Your task to perform on an android device: open a new tab in the chrome app Image 0: 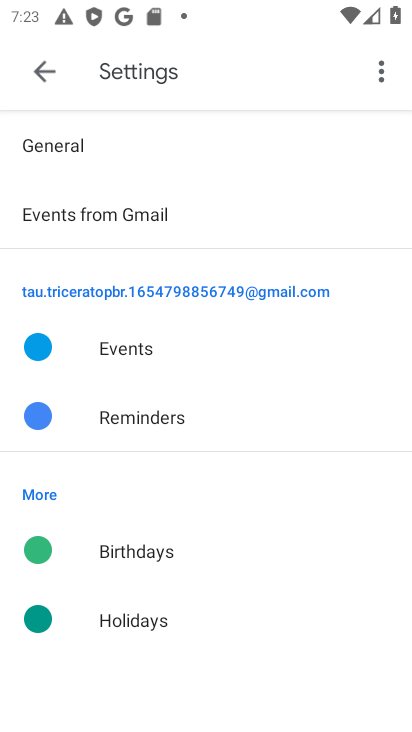
Step 0: press home button
Your task to perform on an android device: open a new tab in the chrome app Image 1: 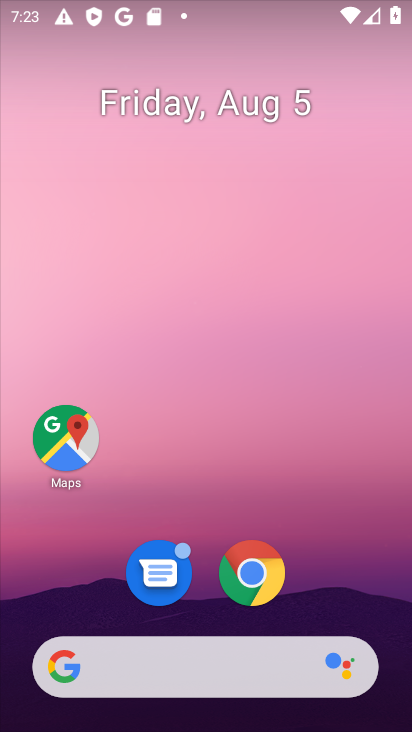
Step 1: click (267, 570)
Your task to perform on an android device: open a new tab in the chrome app Image 2: 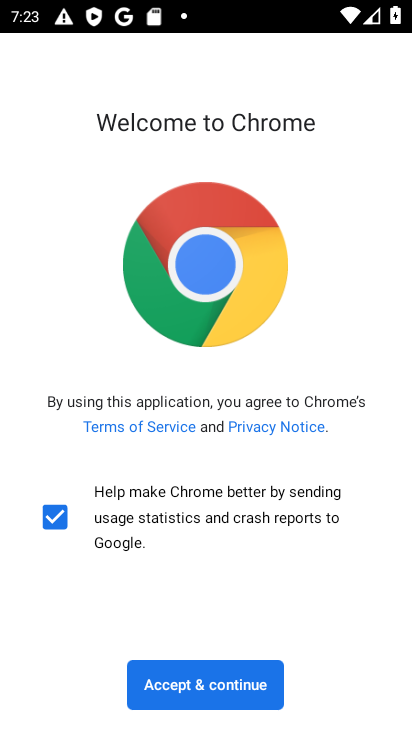
Step 2: click (243, 681)
Your task to perform on an android device: open a new tab in the chrome app Image 3: 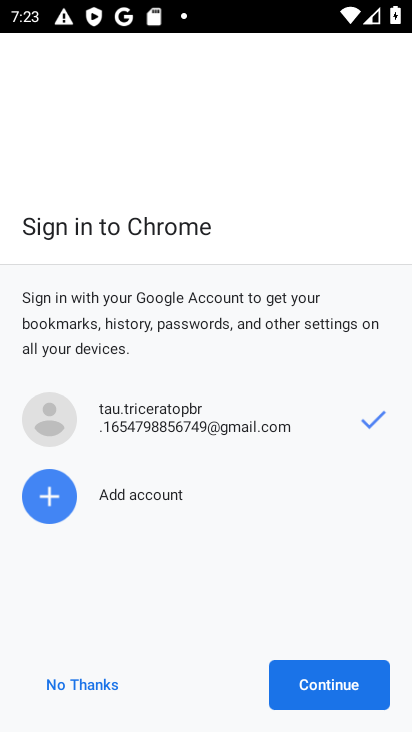
Step 3: click (300, 691)
Your task to perform on an android device: open a new tab in the chrome app Image 4: 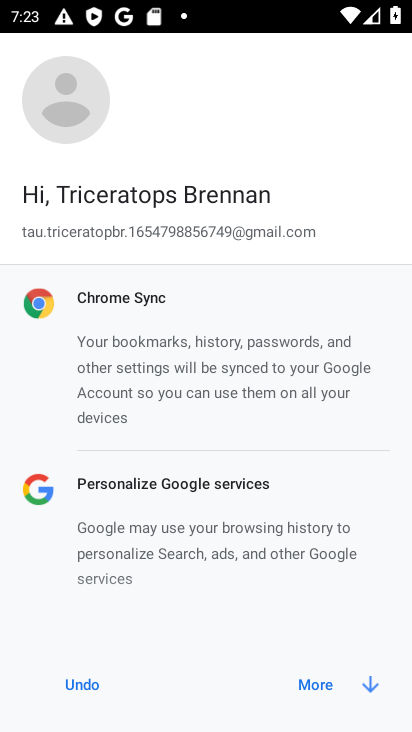
Step 4: click (300, 691)
Your task to perform on an android device: open a new tab in the chrome app Image 5: 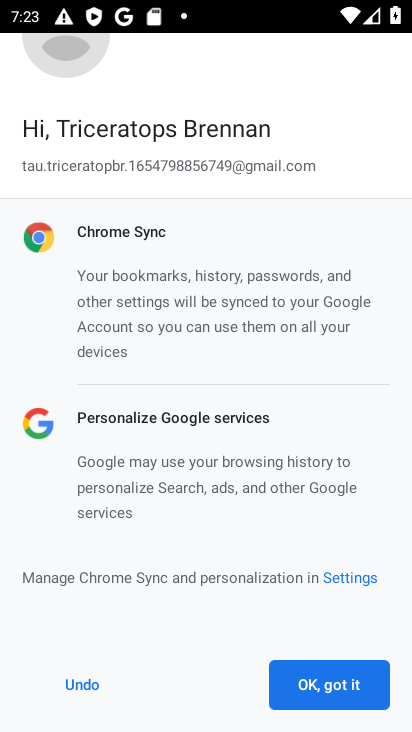
Step 5: click (300, 691)
Your task to perform on an android device: open a new tab in the chrome app Image 6: 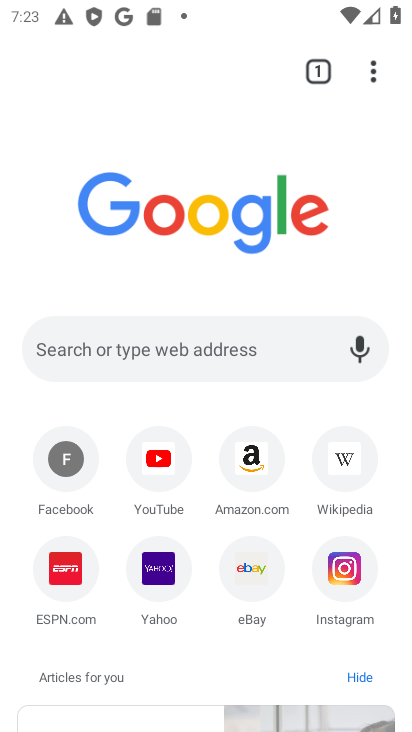
Step 6: click (375, 69)
Your task to perform on an android device: open a new tab in the chrome app Image 7: 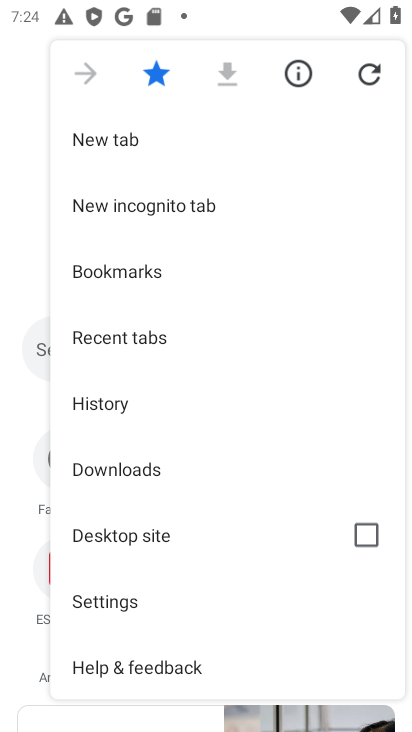
Step 7: click (254, 134)
Your task to perform on an android device: open a new tab in the chrome app Image 8: 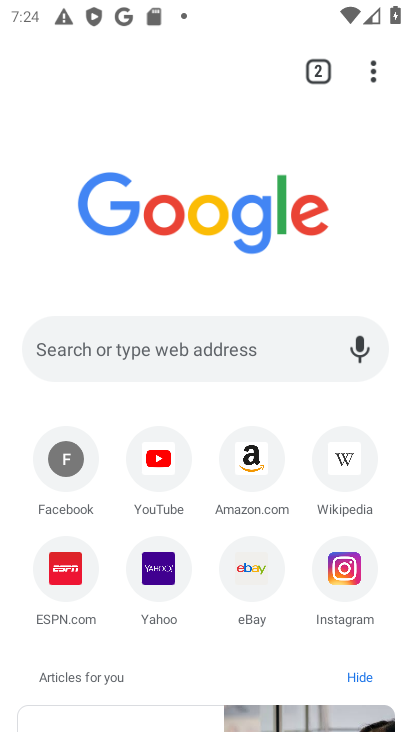
Step 8: task complete